Your task to perform on an android device: Go to network settings Image 0: 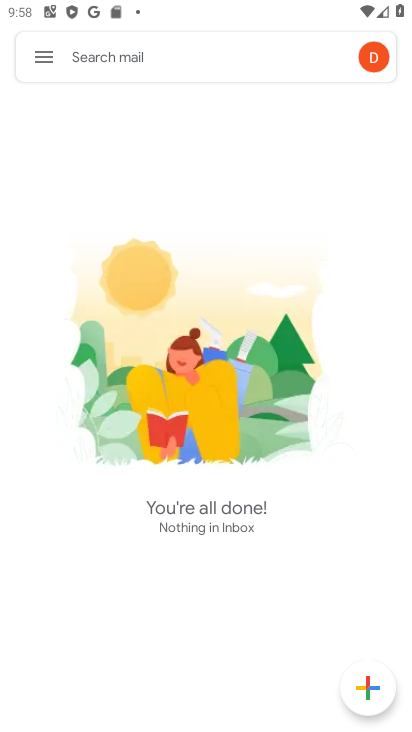
Step 0: press home button
Your task to perform on an android device: Go to network settings Image 1: 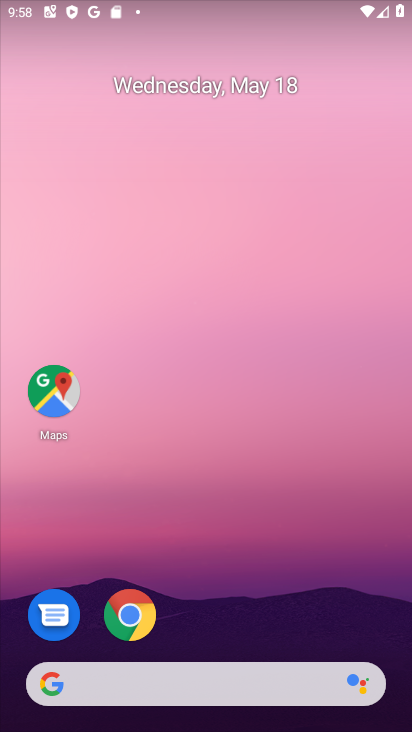
Step 1: click (353, 6)
Your task to perform on an android device: Go to network settings Image 2: 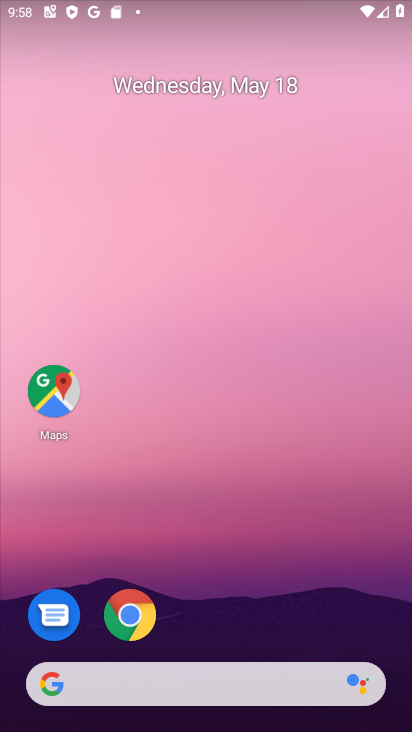
Step 2: drag from (305, 650) to (264, 1)
Your task to perform on an android device: Go to network settings Image 3: 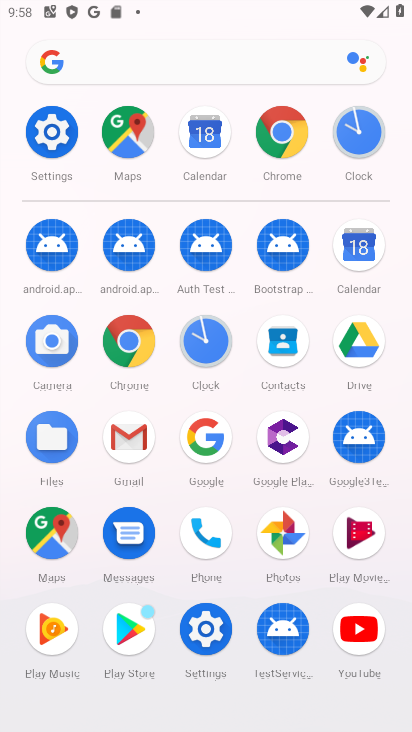
Step 3: click (59, 164)
Your task to perform on an android device: Go to network settings Image 4: 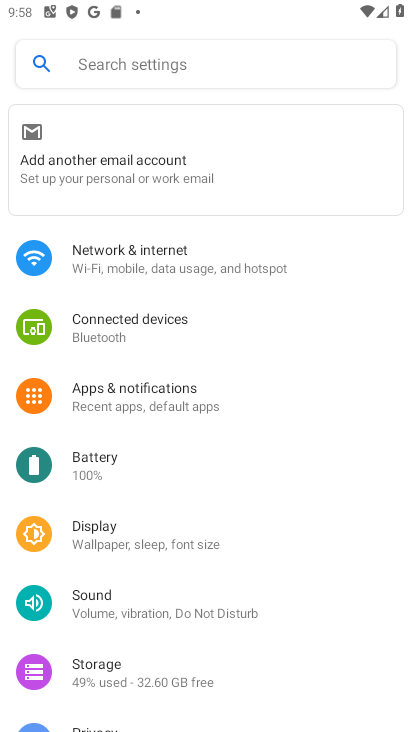
Step 4: click (167, 265)
Your task to perform on an android device: Go to network settings Image 5: 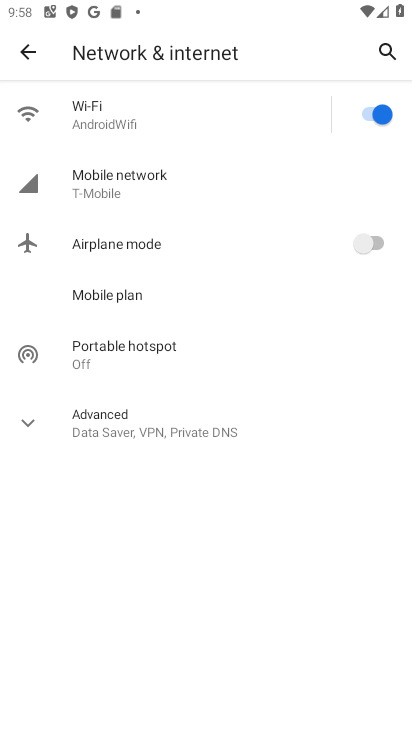
Step 5: task complete